Your task to perform on an android device: Open CNN.com Image 0: 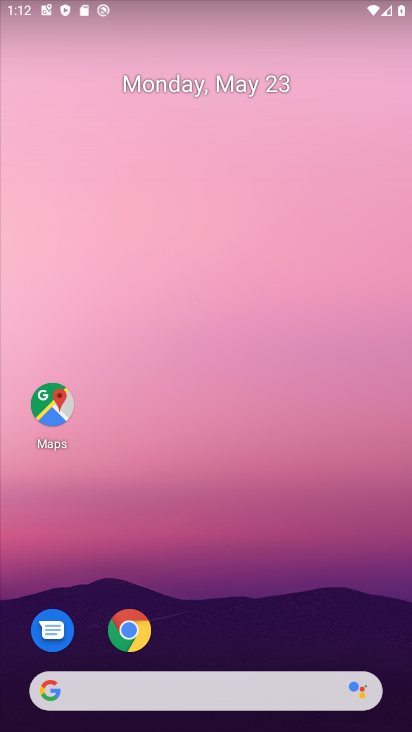
Step 0: drag from (207, 621) to (239, 157)
Your task to perform on an android device: Open CNN.com Image 1: 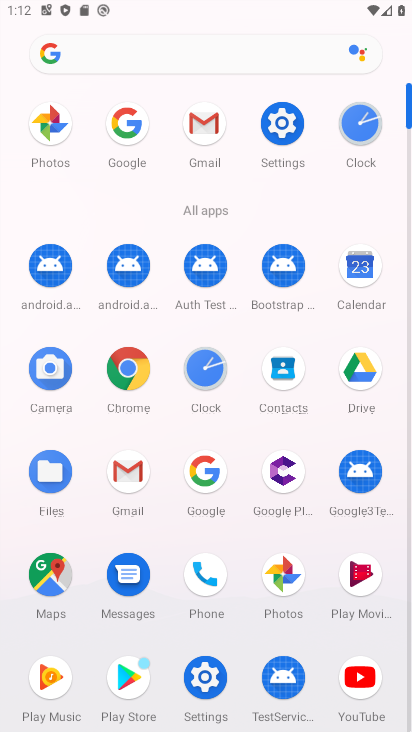
Step 1: click (194, 463)
Your task to perform on an android device: Open CNN.com Image 2: 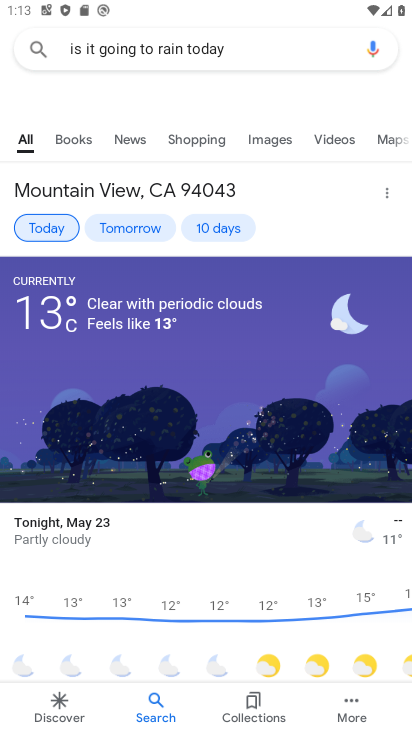
Step 2: click (246, 52)
Your task to perform on an android device: Open CNN.com Image 3: 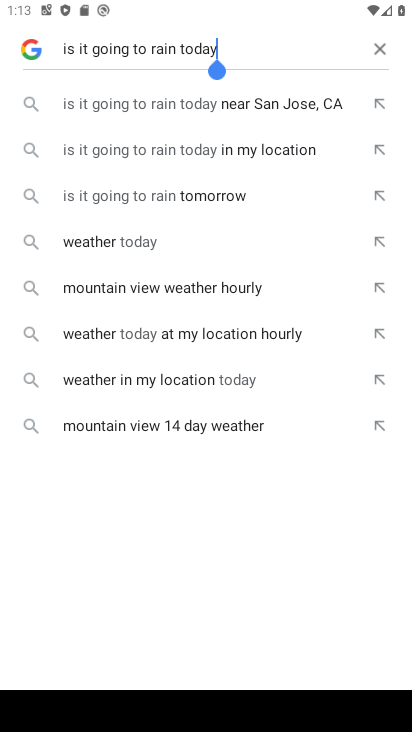
Step 3: click (371, 51)
Your task to perform on an android device: Open CNN.com Image 4: 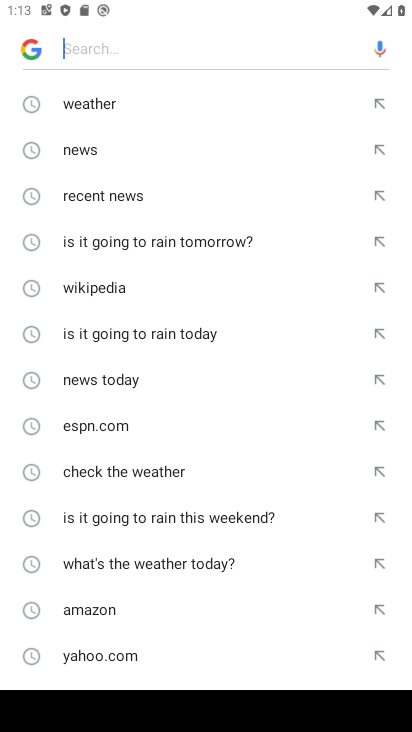
Step 4: drag from (185, 512) to (190, 209)
Your task to perform on an android device: Open CNN.com Image 5: 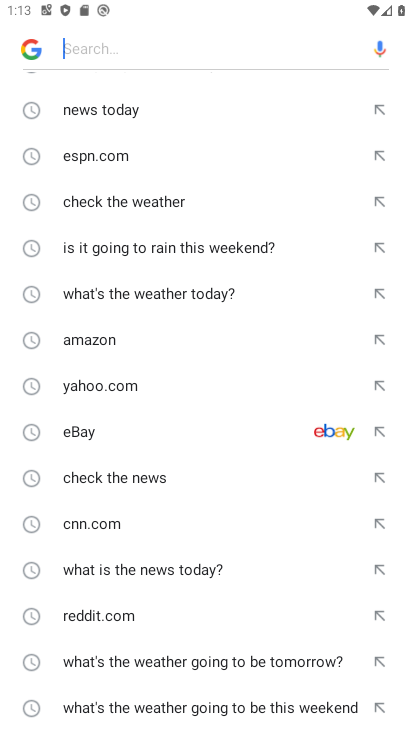
Step 5: click (90, 526)
Your task to perform on an android device: Open CNN.com Image 6: 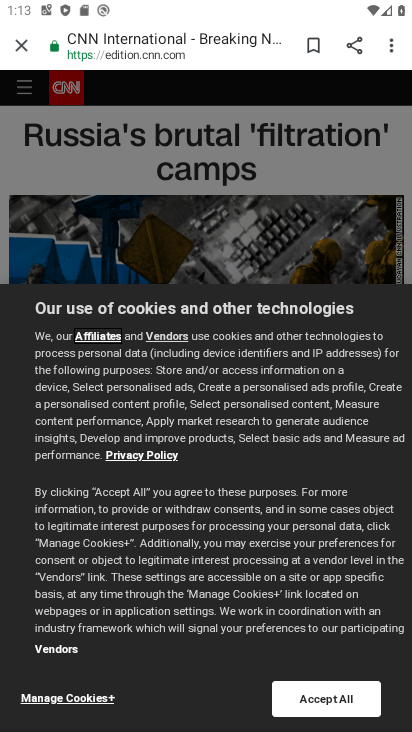
Step 6: task complete